Your task to perform on an android device: Show me productivity apps on the Play Store Image 0: 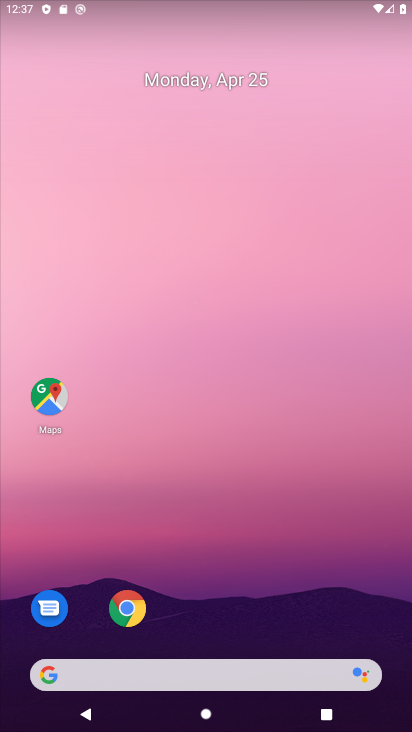
Step 0: drag from (217, 627) to (212, 181)
Your task to perform on an android device: Show me productivity apps on the Play Store Image 1: 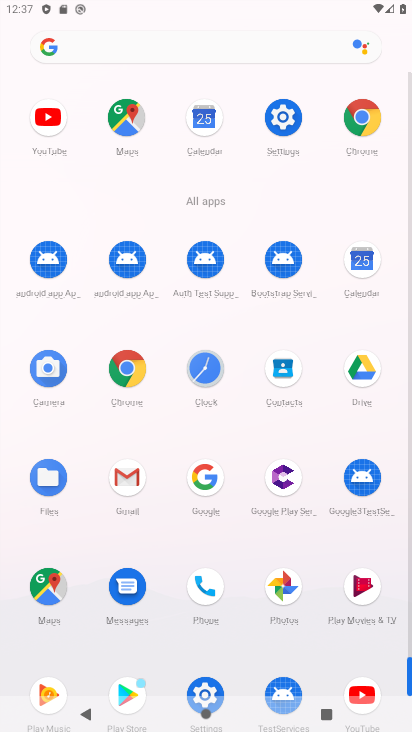
Step 1: click (132, 685)
Your task to perform on an android device: Show me productivity apps on the Play Store Image 2: 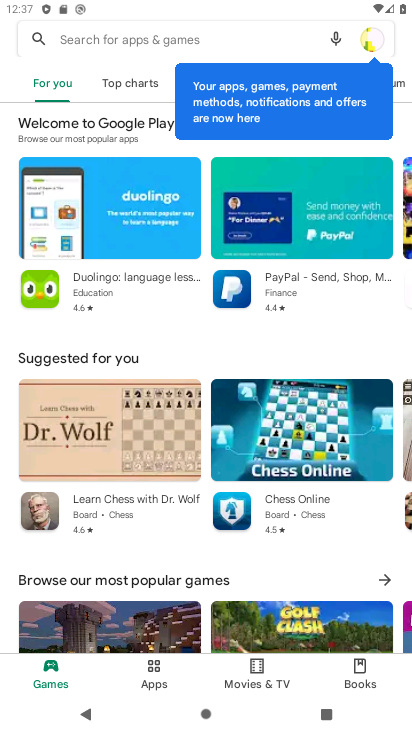
Step 2: click (169, 679)
Your task to perform on an android device: Show me productivity apps on the Play Store Image 3: 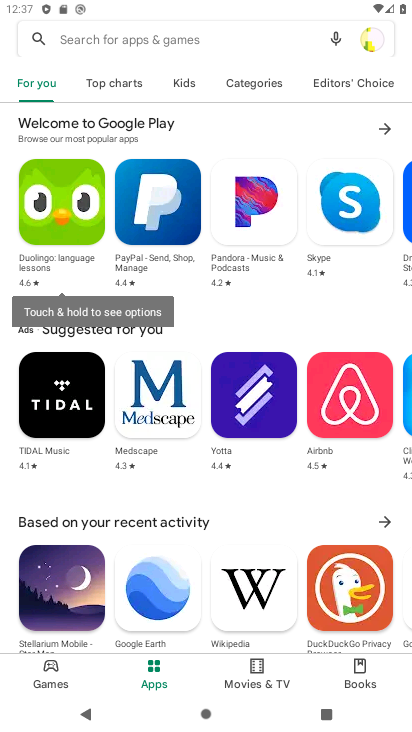
Step 3: click (257, 84)
Your task to perform on an android device: Show me productivity apps on the Play Store Image 4: 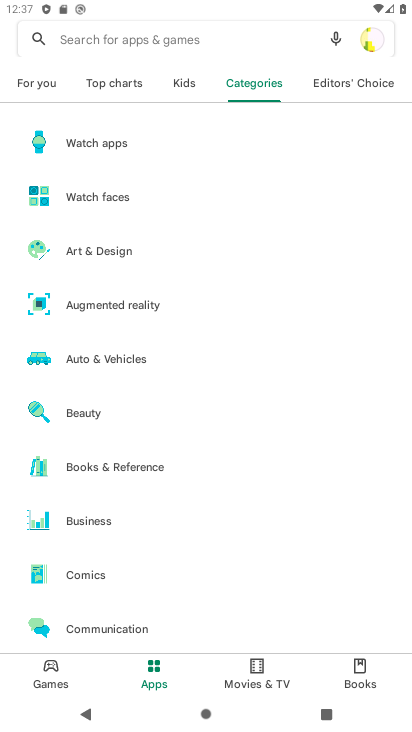
Step 4: drag from (234, 567) to (180, 107)
Your task to perform on an android device: Show me productivity apps on the Play Store Image 5: 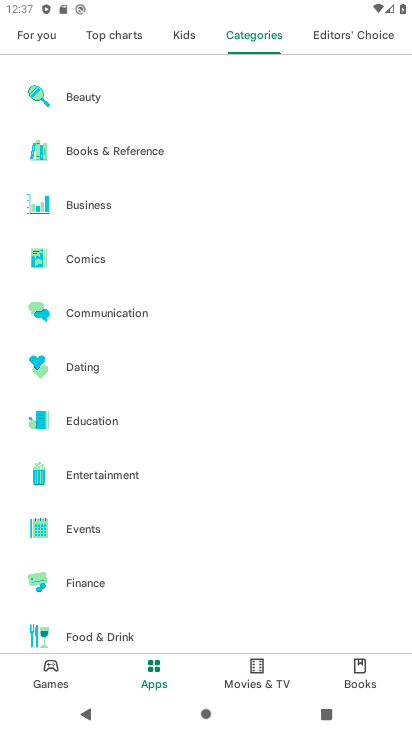
Step 5: drag from (193, 547) to (142, 166)
Your task to perform on an android device: Show me productivity apps on the Play Store Image 6: 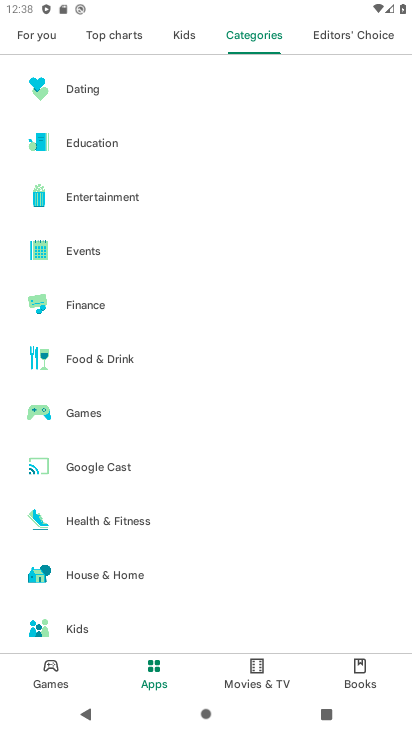
Step 6: drag from (179, 574) to (131, 178)
Your task to perform on an android device: Show me productivity apps on the Play Store Image 7: 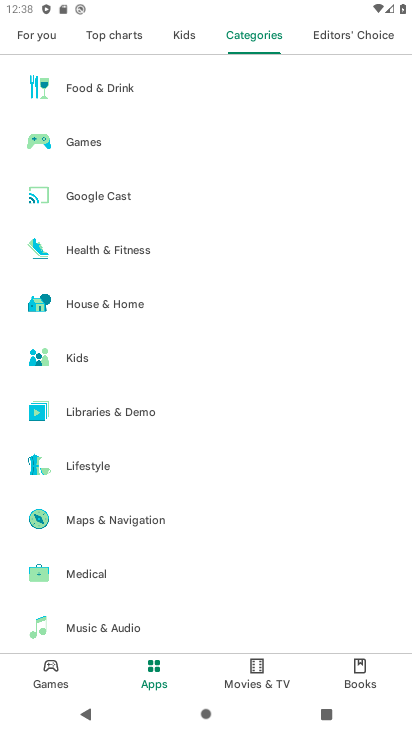
Step 7: drag from (174, 573) to (146, 79)
Your task to perform on an android device: Show me productivity apps on the Play Store Image 8: 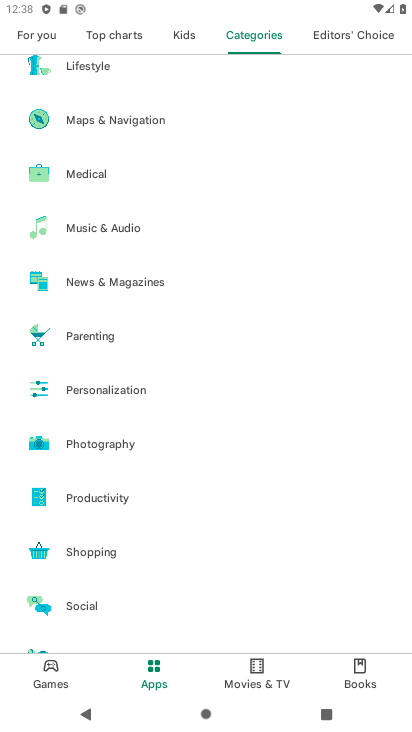
Step 8: click (149, 500)
Your task to perform on an android device: Show me productivity apps on the Play Store Image 9: 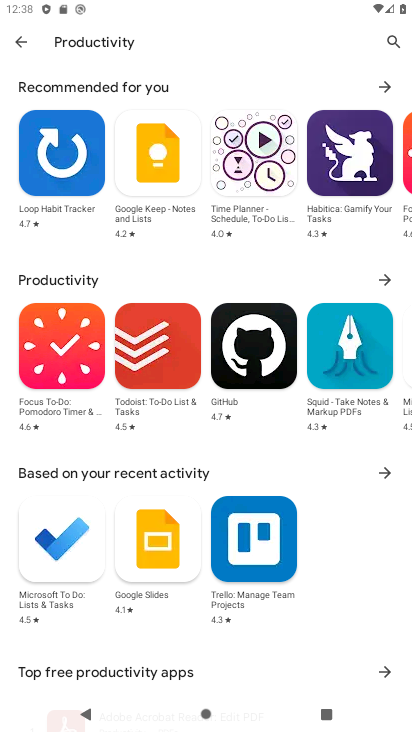
Step 9: task complete